Your task to perform on an android device: Open eBay Image 0: 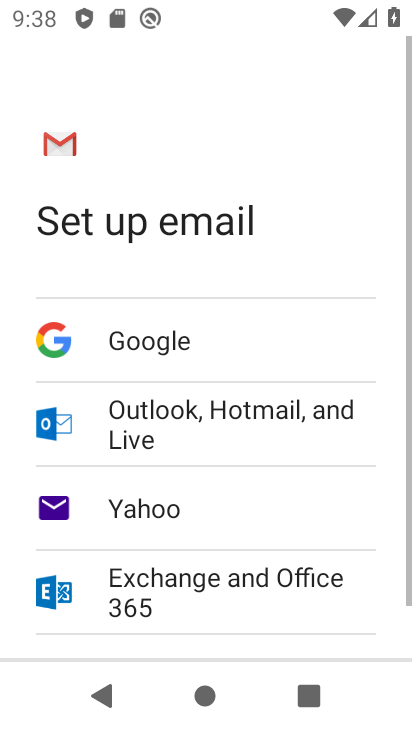
Step 0: press home button
Your task to perform on an android device: Open eBay Image 1: 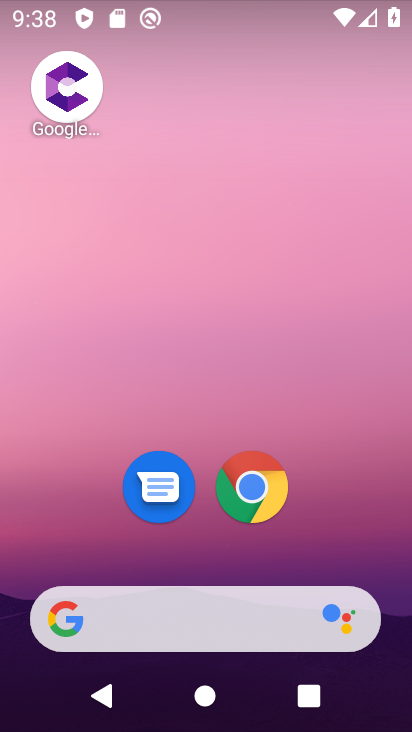
Step 1: click (260, 493)
Your task to perform on an android device: Open eBay Image 2: 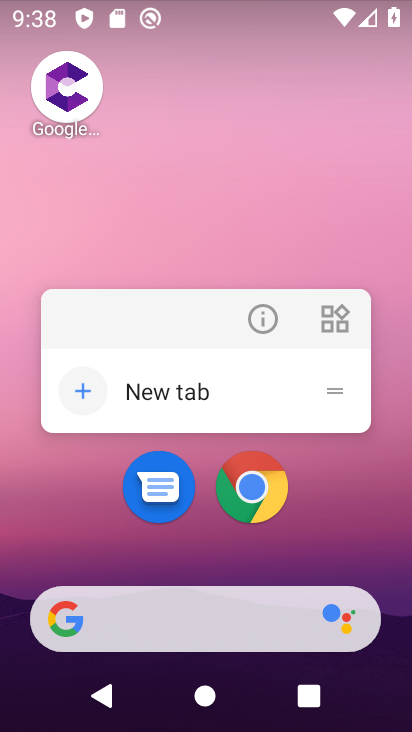
Step 2: click (260, 493)
Your task to perform on an android device: Open eBay Image 3: 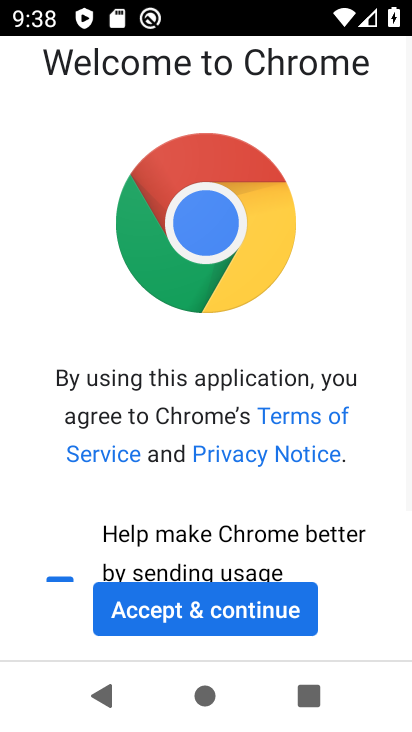
Step 3: click (281, 601)
Your task to perform on an android device: Open eBay Image 4: 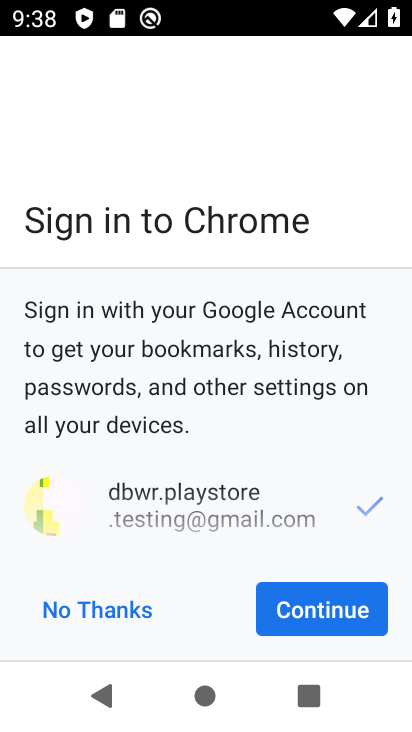
Step 4: click (325, 605)
Your task to perform on an android device: Open eBay Image 5: 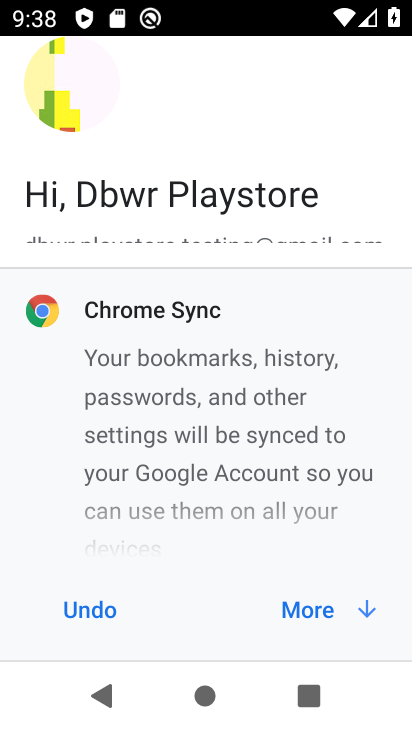
Step 5: click (325, 607)
Your task to perform on an android device: Open eBay Image 6: 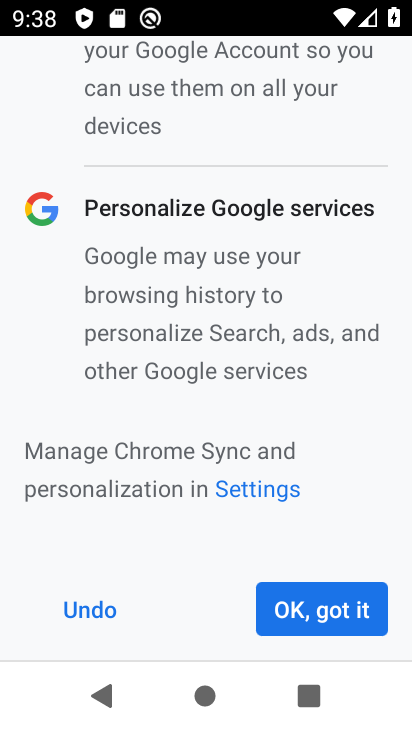
Step 6: click (325, 607)
Your task to perform on an android device: Open eBay Image 7: 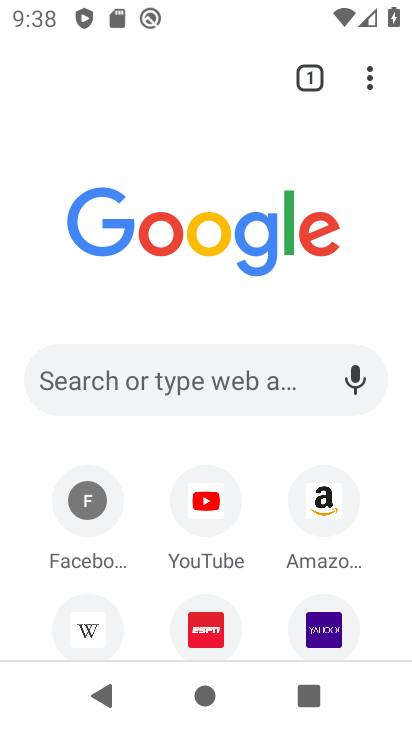
Step 7: click (161, 389)
Your task to perform on an android device: Open eBay Image 8: 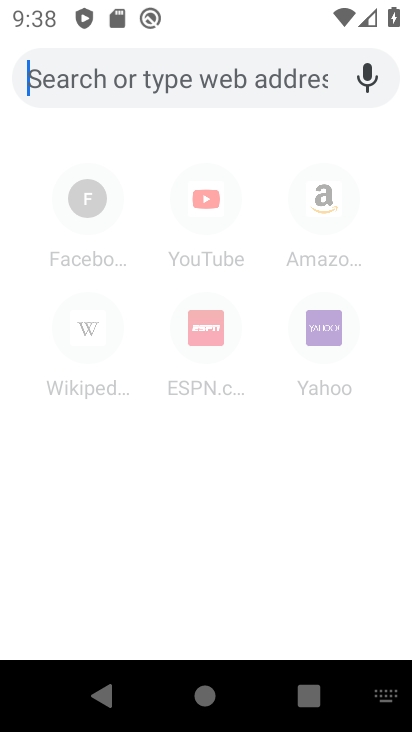
Step 8: type "ebay"
Your task to perform on an android device: Open eBay Image 9: 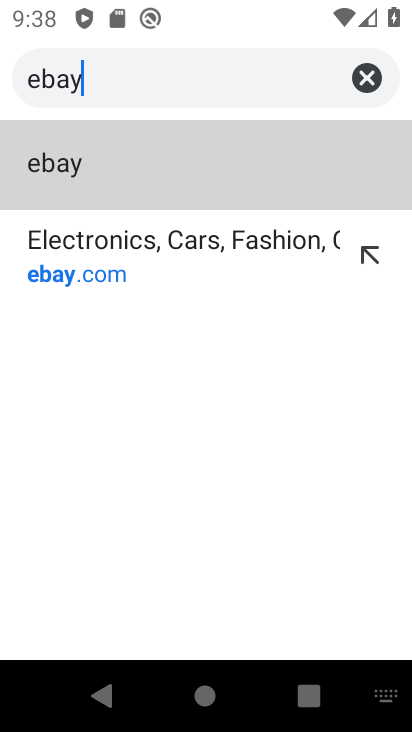
Step 9: click (150, 234)
Your task to perform on an android device: Open eBay Image 10: 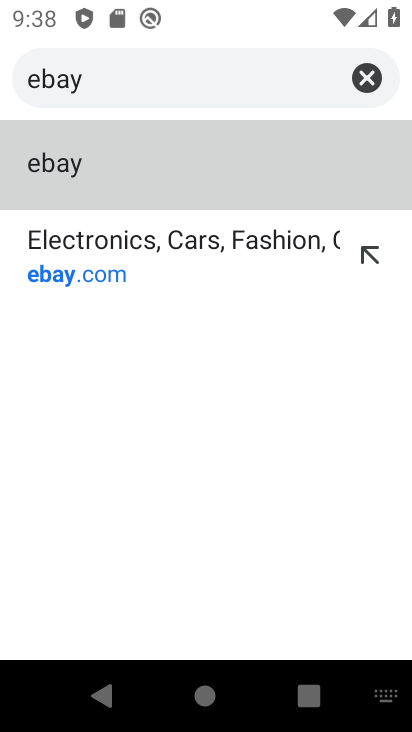
Step 10: type "f"
Your task to perform on an android device: Open eBay Image 11: 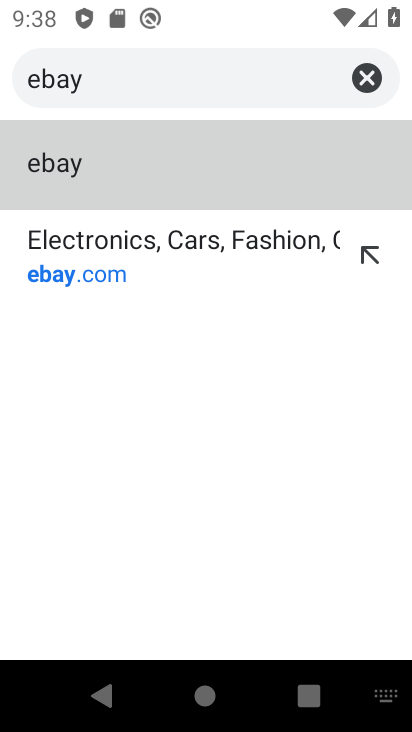
Step 11: click (150, 234)
Your task to perform on an android device: Open eBay Image 12: 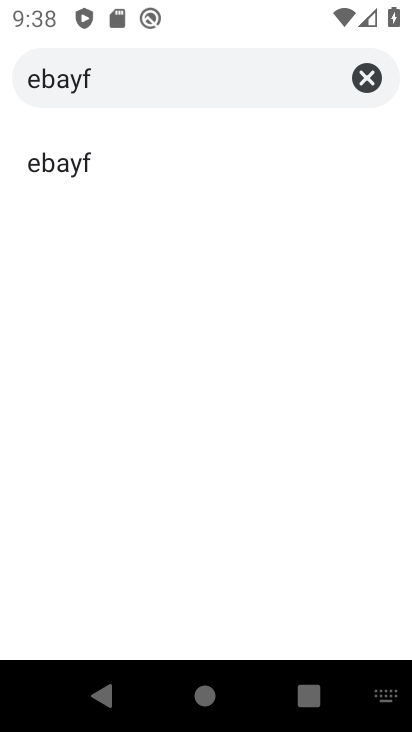
Step 12: click (374, 61)
Your task to perform on an android device: Open eBay Image 13: 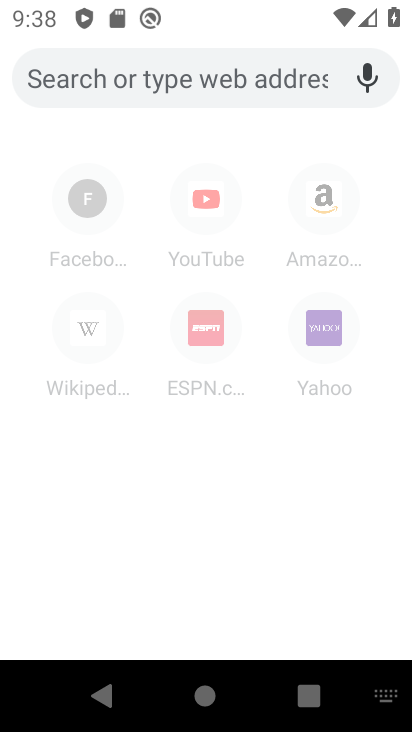
Step 13: type "ebay"
Your task to perform on an android device: Open eBay Image 14: 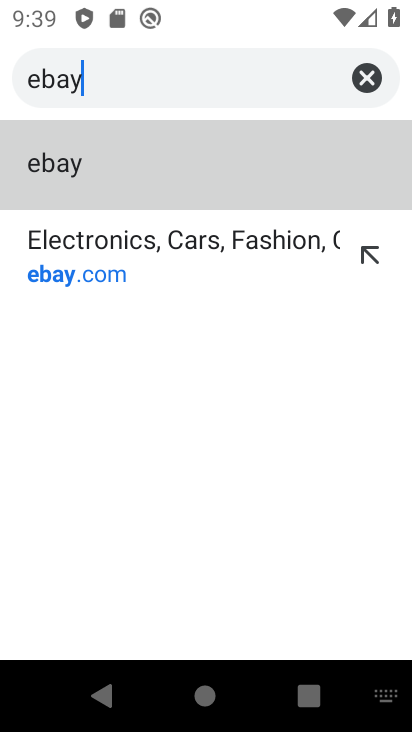
Step 14: click (52, 262)
Your task to perform on an android device: Open eBay Image 15: 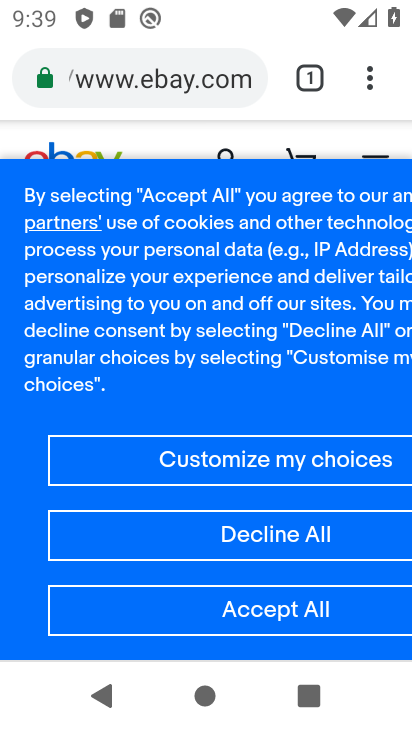
Step 15: click (281, 122)
Your task to perform on an android device: Open eBay Image 16: 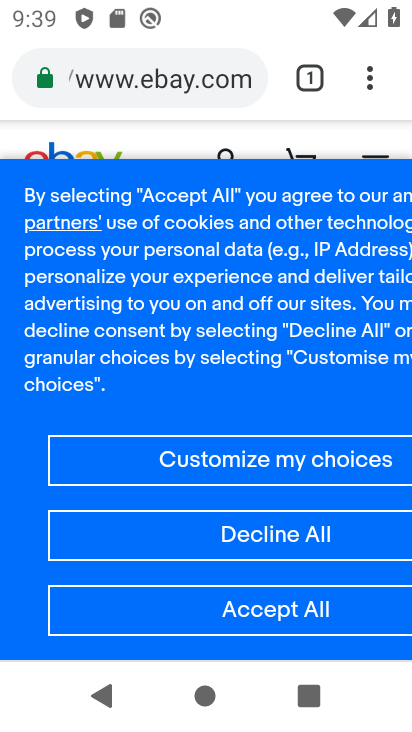
Step 16: click (248, 623)
Your task to perform on an android device: Open eBay Image 17: 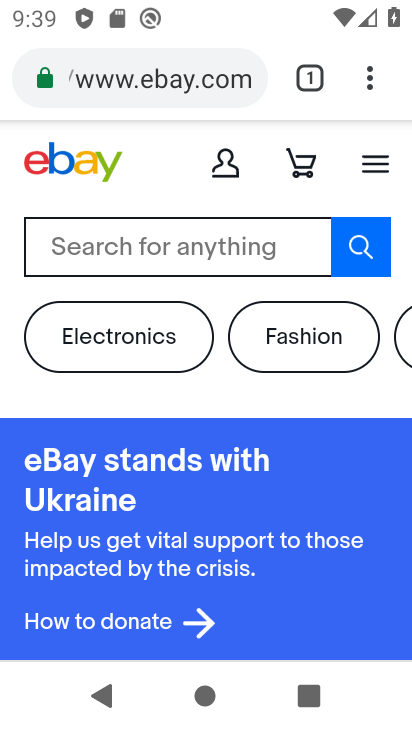
Step 17: task complete